Your task to perform on an android device: Open Google Image 0: 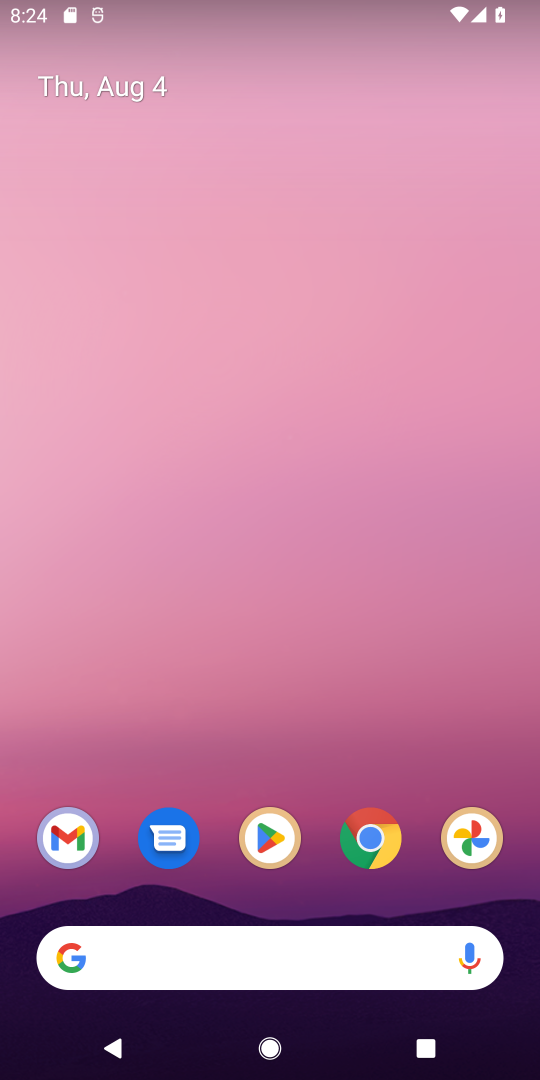
Step 0: drag from (309, 771) to (308, 256)
Your task to perform on an android device: Open Google Image 1: 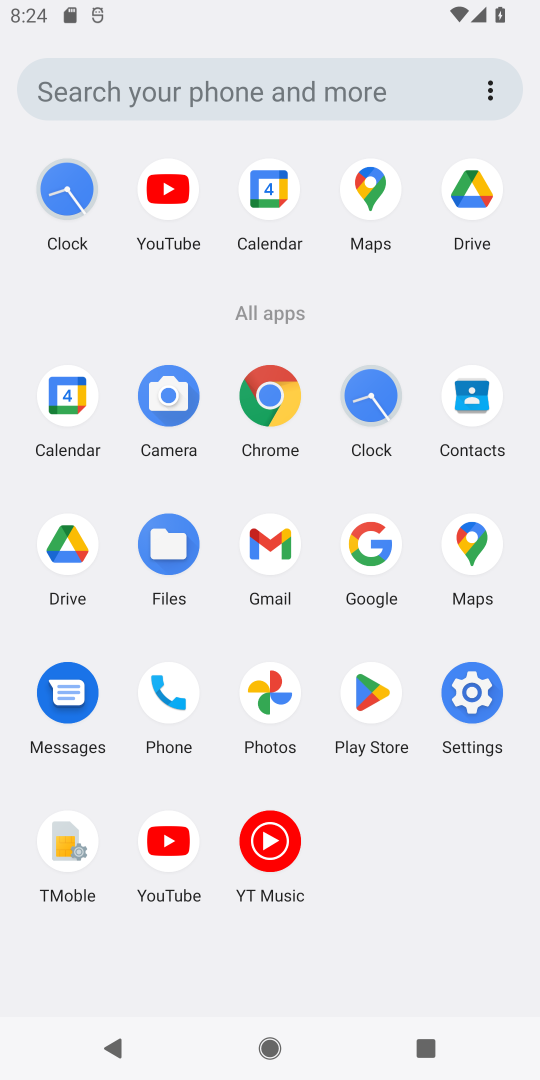
Step 1: click (377, 549)
Your task to perform on an android device: Open Google Image 2: 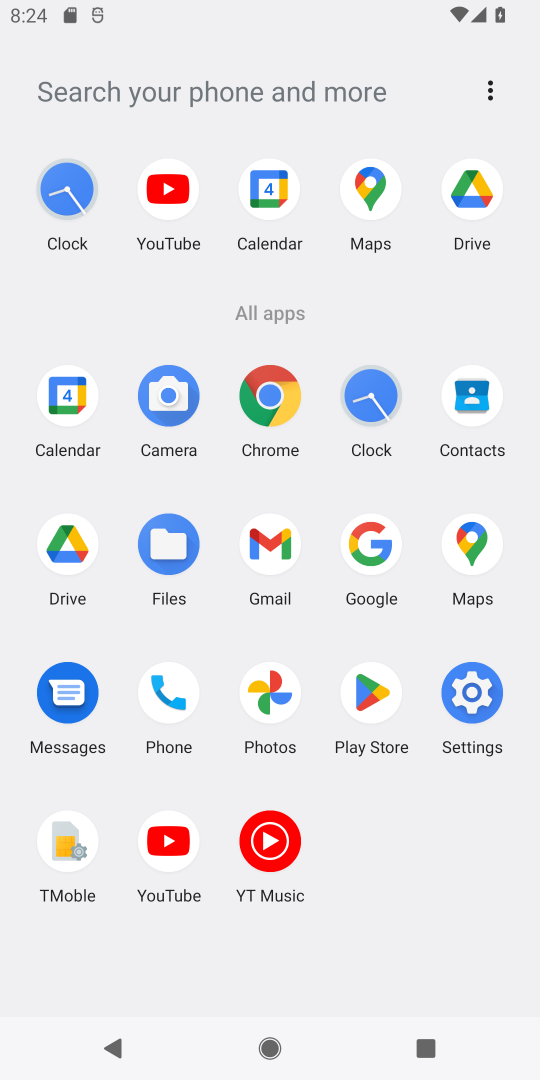
Step 2: click (377, 549)
Your task to perform on an android device: Open Google Image 3: 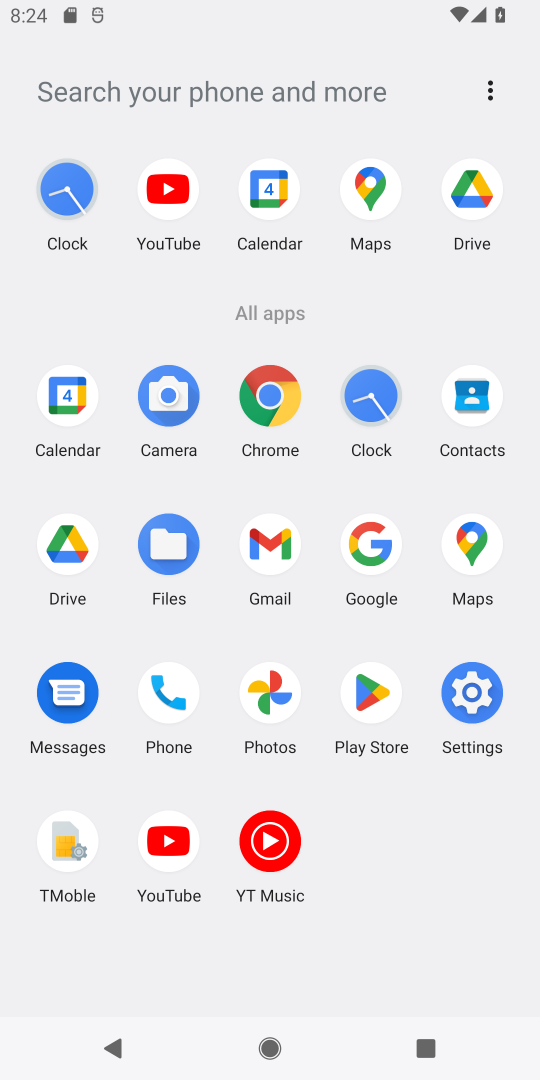
Step 3: click (369, 553)
Your task to perform on an android device: Open Google Image 4: 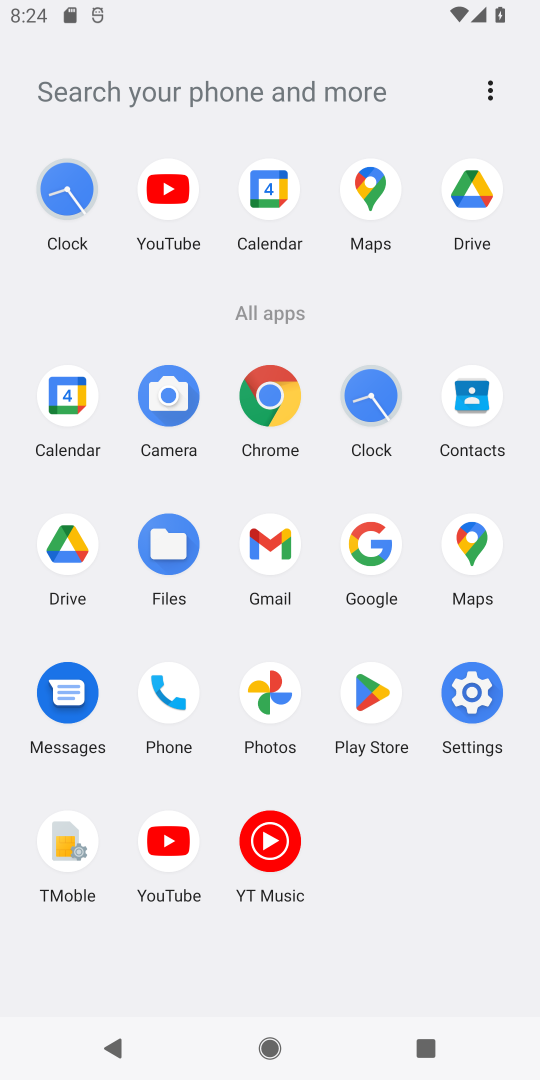
Step 4: click (365, 539)
Your task to perform on an android device: Open Google Image 5: 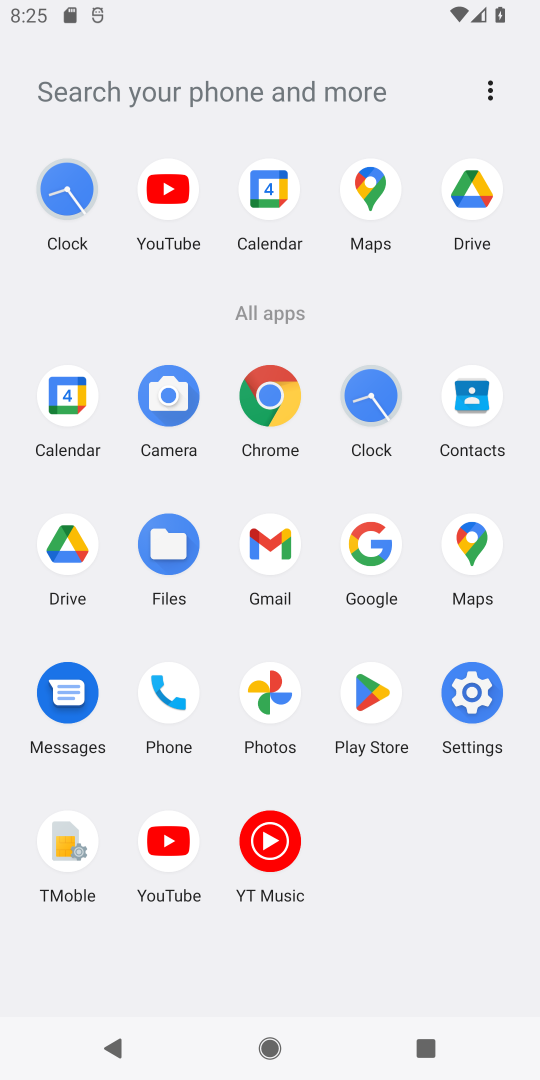
Step 5: task complete